Your task to perform on an android device: set the timer Image 0: 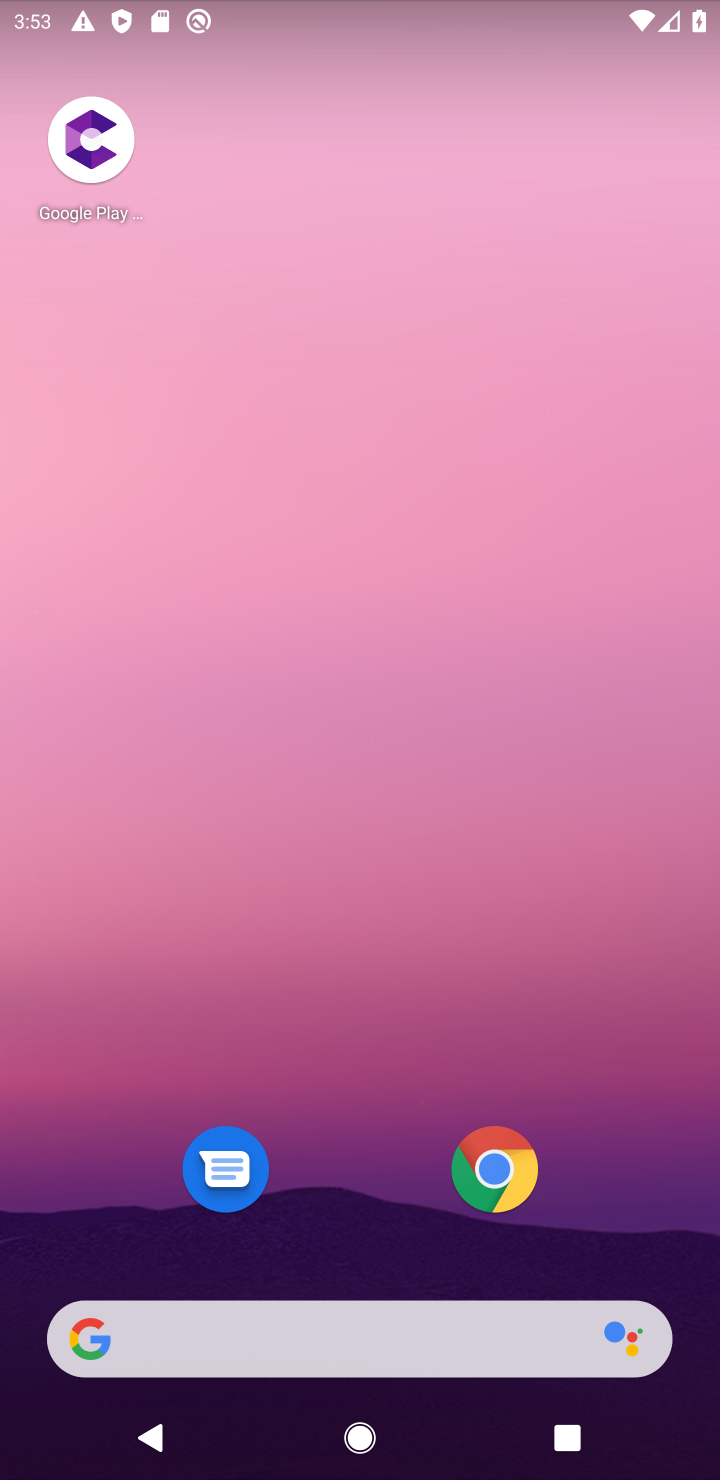
Step 0: drag from (339, 991) to (296, 8)
Your task to perform on an android device: set the timer Image 1: 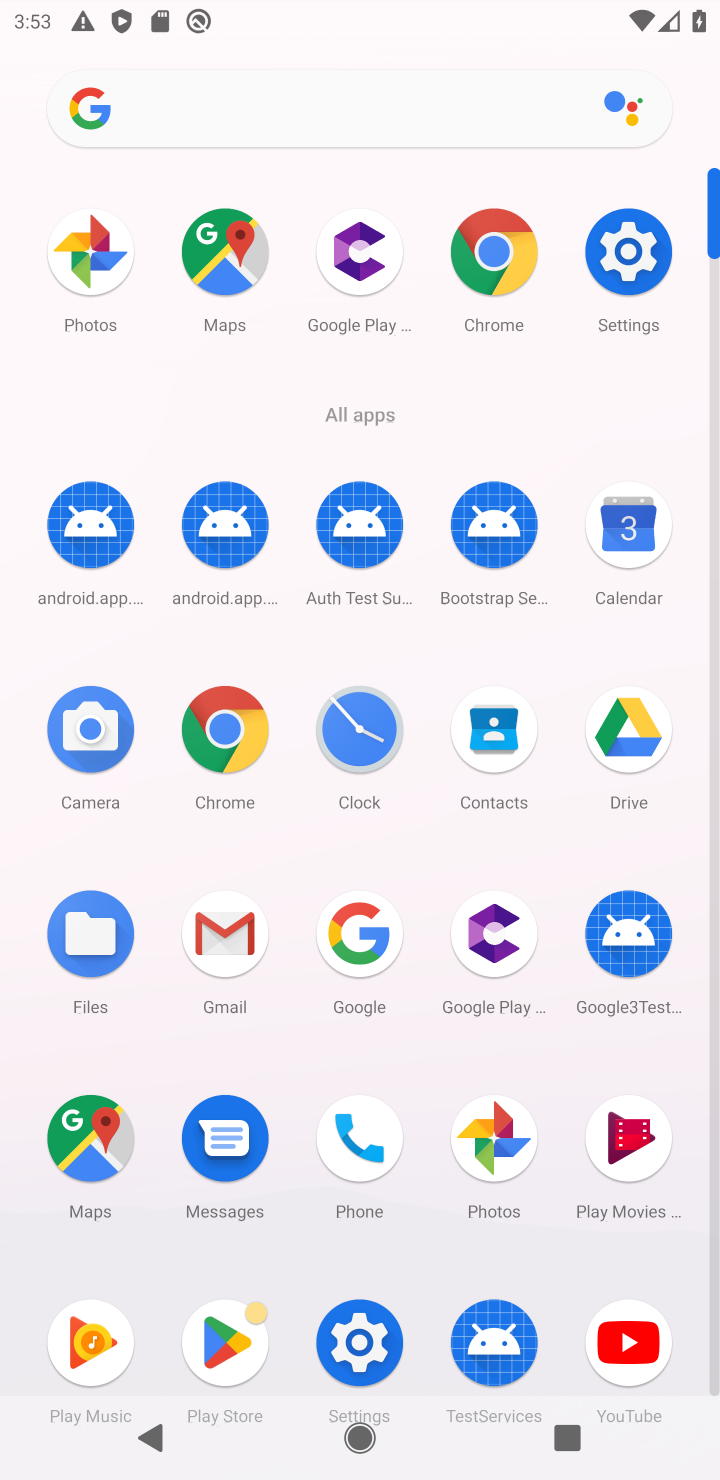
Step 1: click (344, 723)
Your task to perform on an android device: set the timer Image 2: 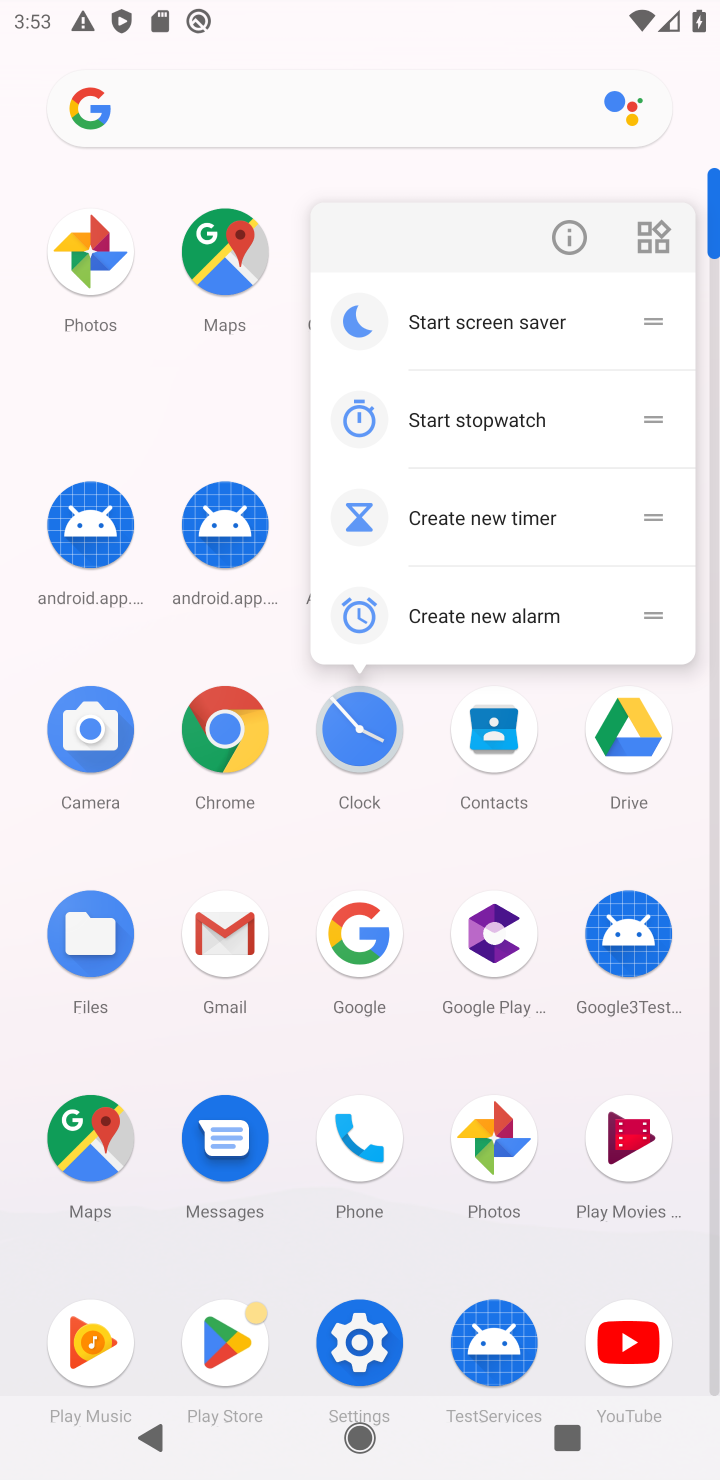
Step 2: click (348, 738)
Your task to perform on an android device: set the timer Image 3: 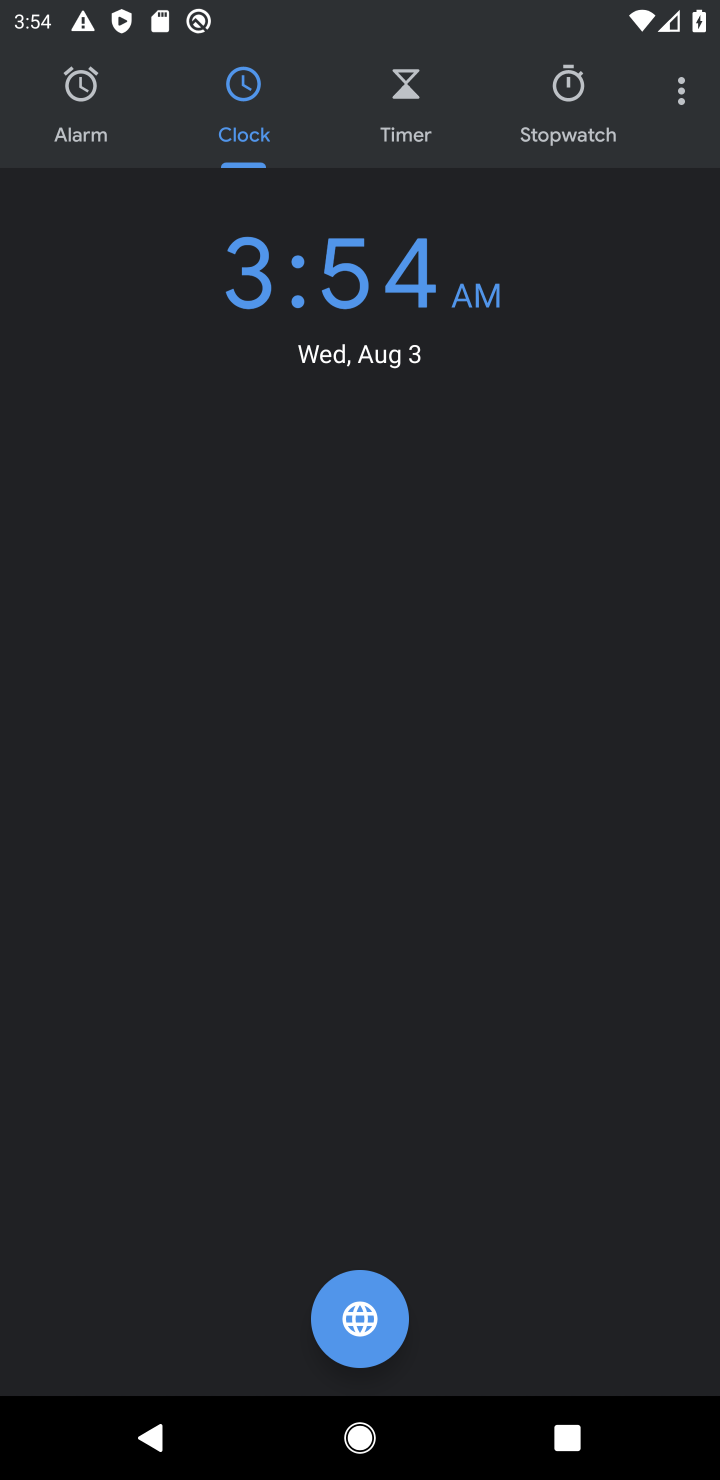
Step 3: click (415, 89)
Your task to perform on an android device: set the timer Image 4: 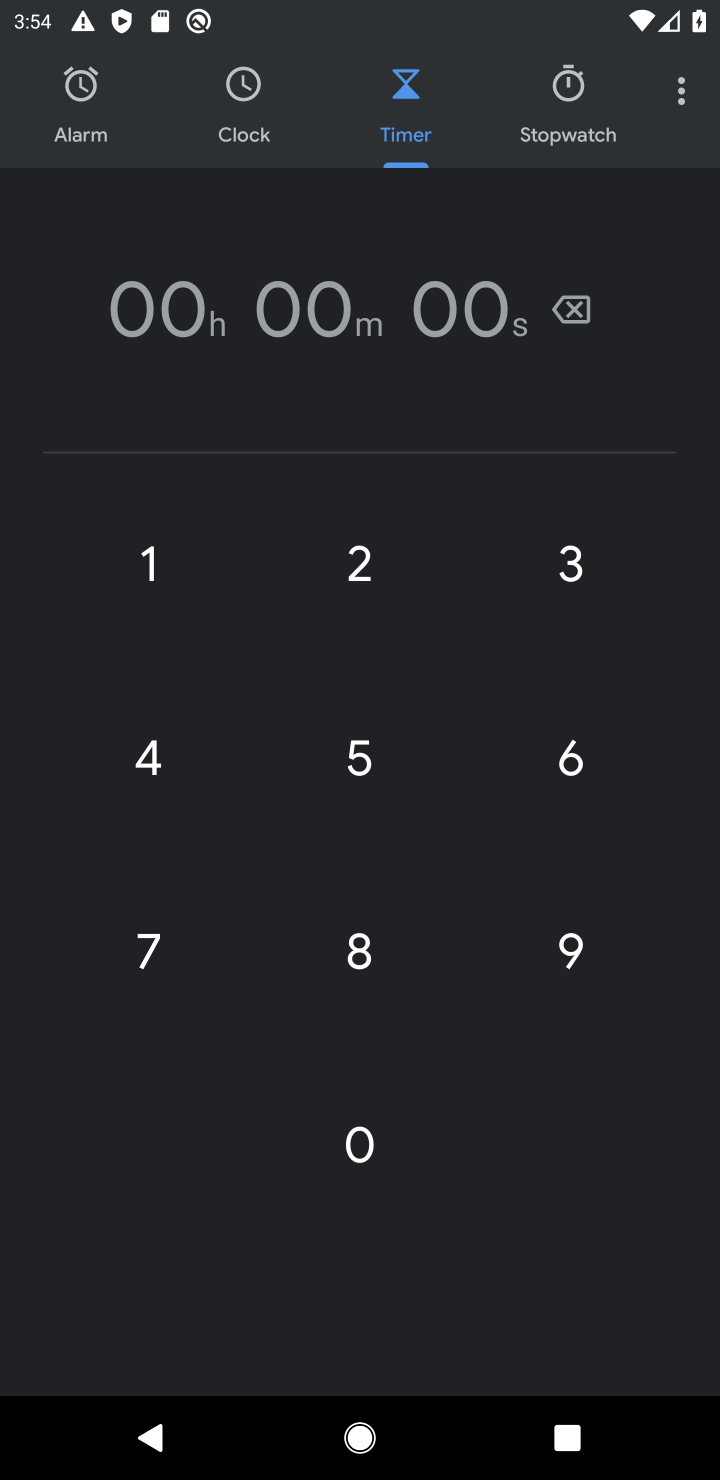
Step 4: click (368, 956)
Your task to perform on an android device: set the timer Image 5: 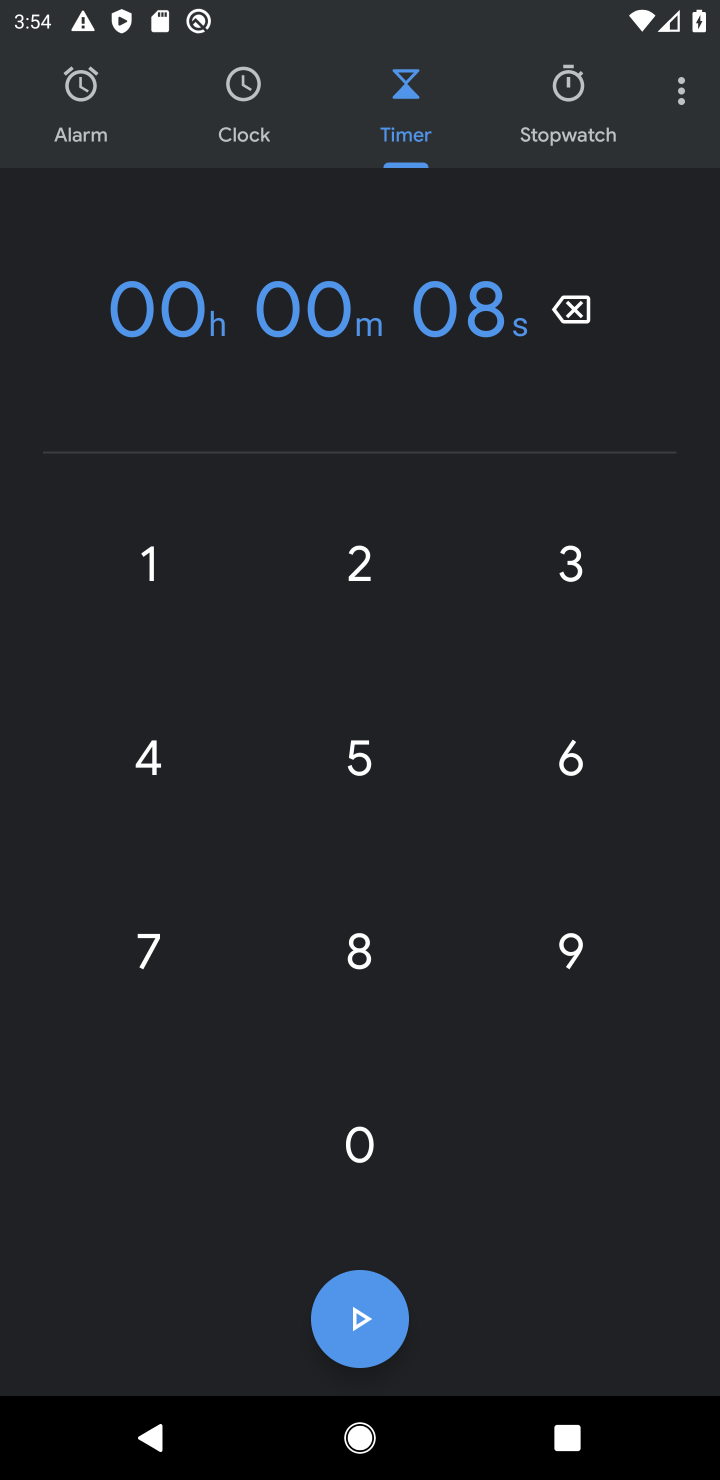
Step 5: click (378, 743)
Your task to perform on an android device: set the timer Image 6: 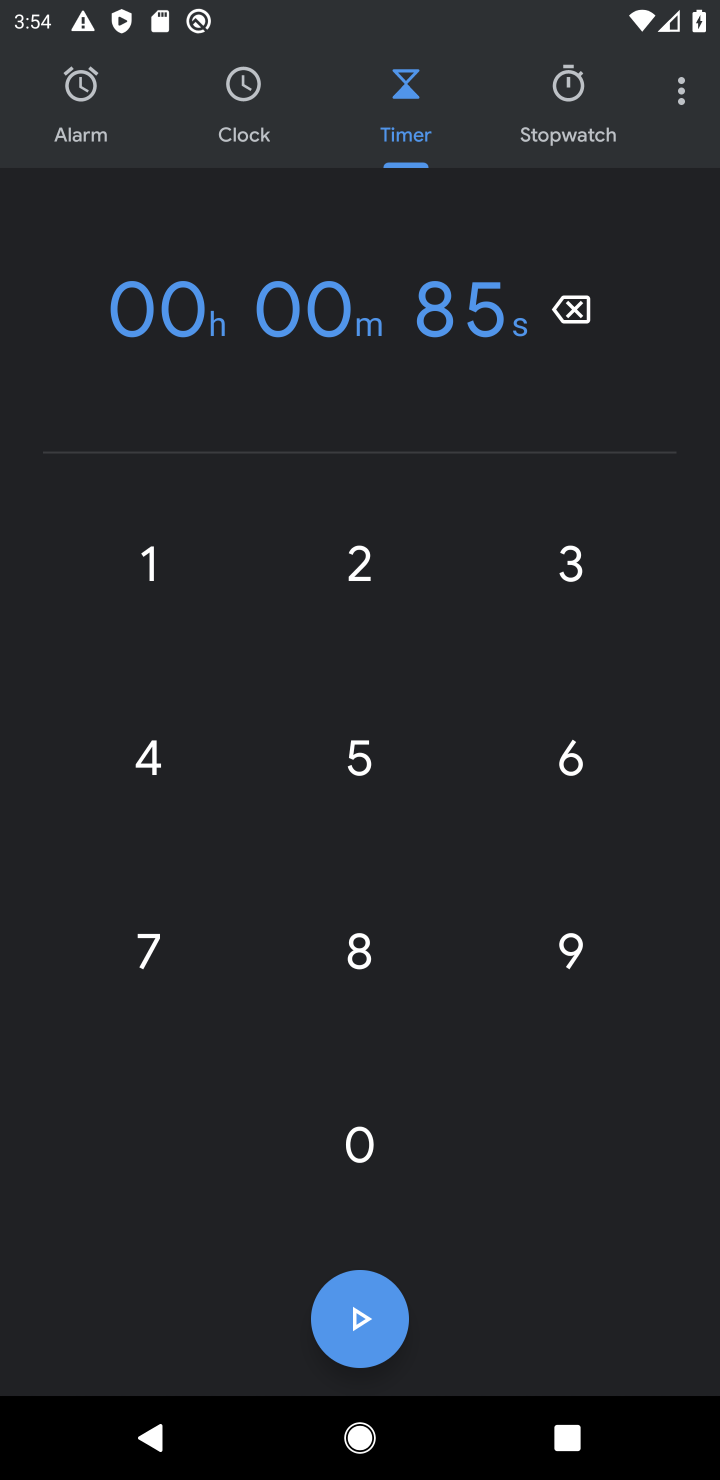
Step 6: click (153, 752)
Your task to perform on an android device: set the timer Image 7: 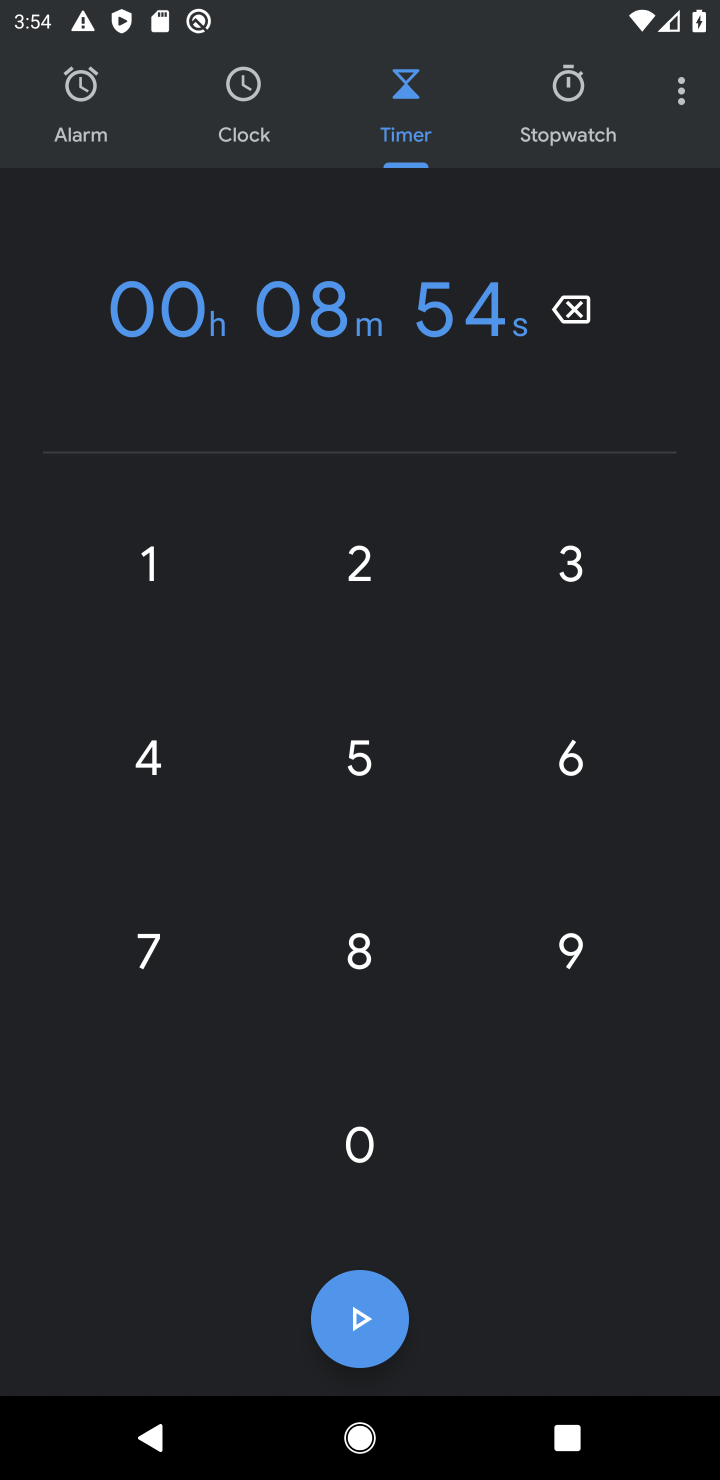
Step 7: click (376, 1335)
Your task to perform on an android device: set the timer Image 8: 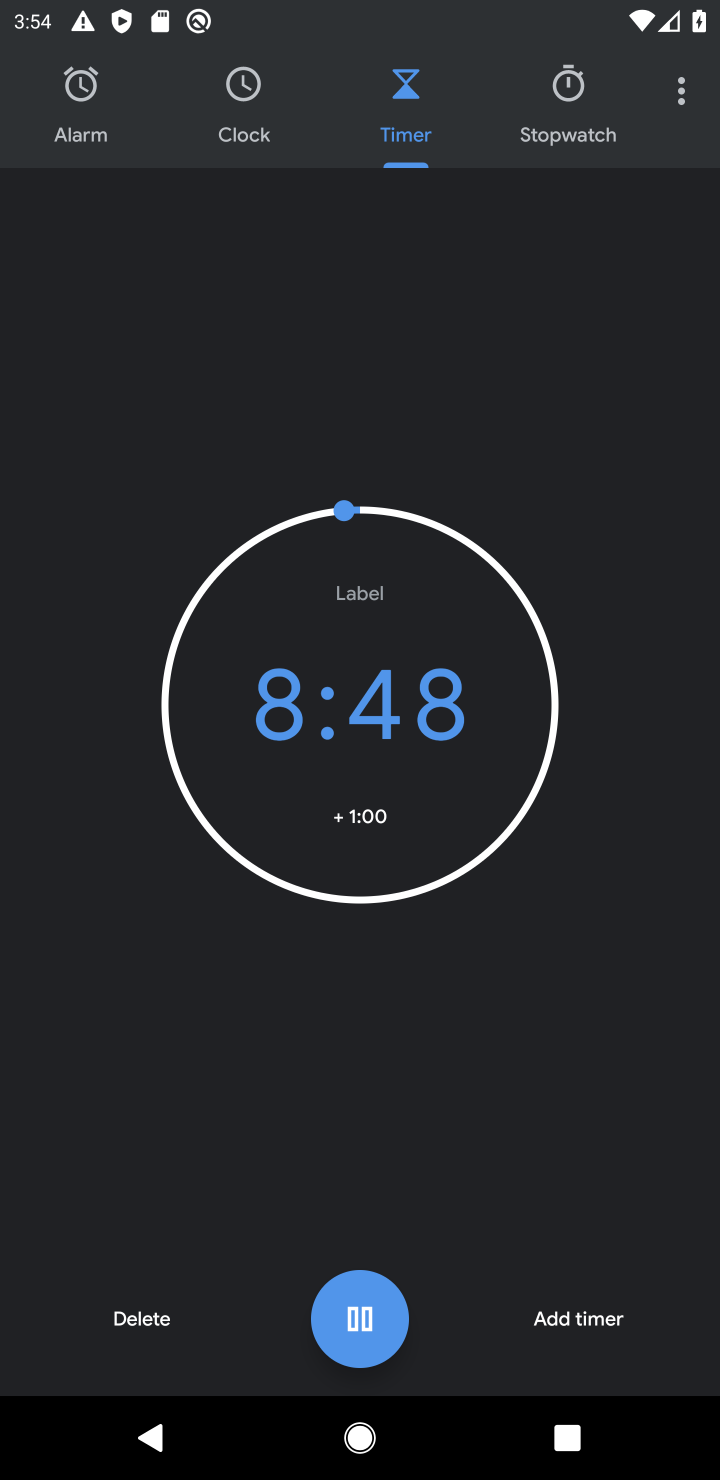
Step 8: task complete